Your task to perform on an android device: Check the news Image 0: 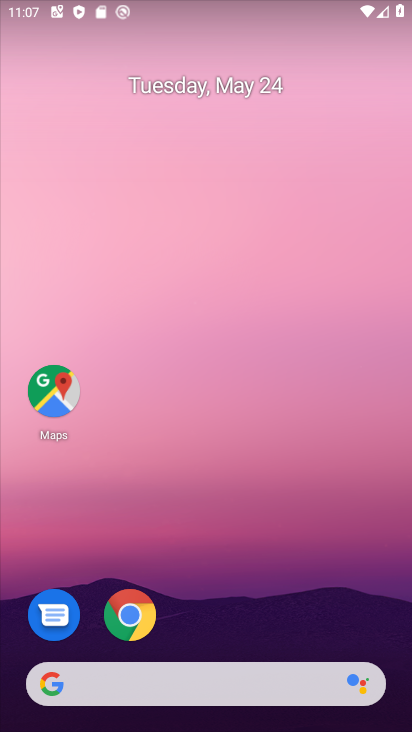
Step 0: drag from (205, 626) to (262, 100)
Your task to perform on an android device: Check the news Image 1: 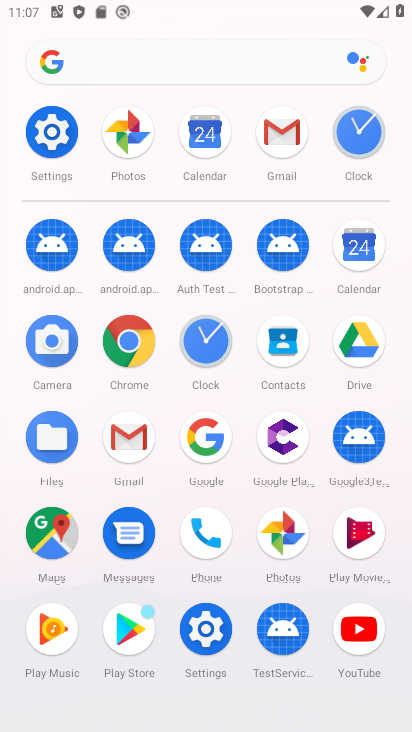
Step 1: click (317, 235)
Your task to perform on an android device: Check the news Image 2: 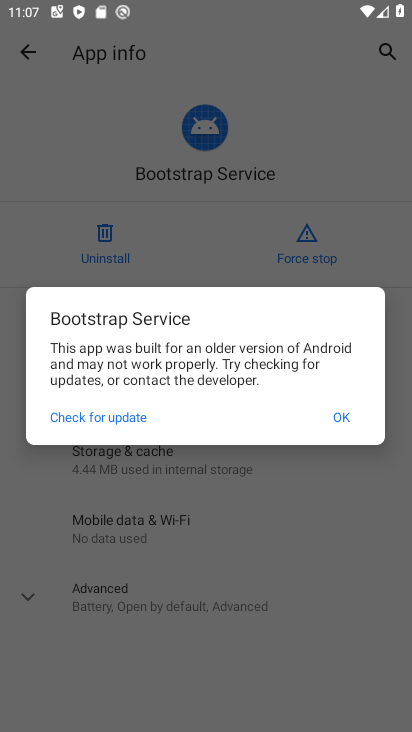
Step 2: press home button
Your task to perform on an android device: Check the news Image 3: 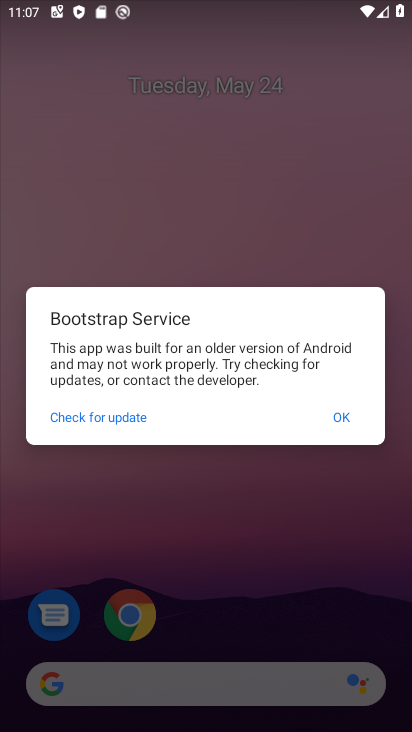
Step 3: press home button
Your task to perform on an android device: Check the news Image 4: 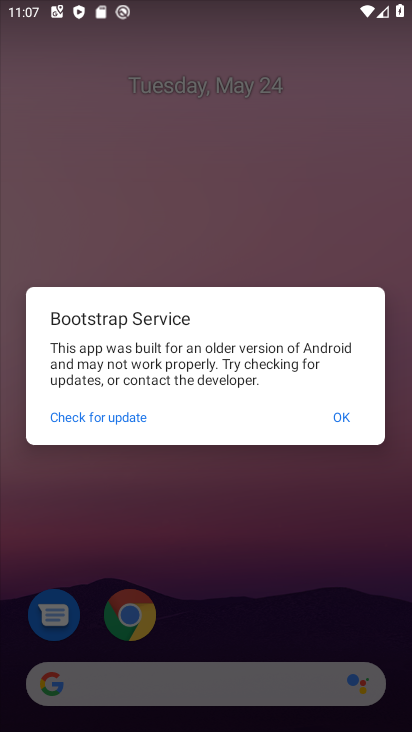
Step 4: press home button
Your task to perform on an android device: Check the news Image 5: 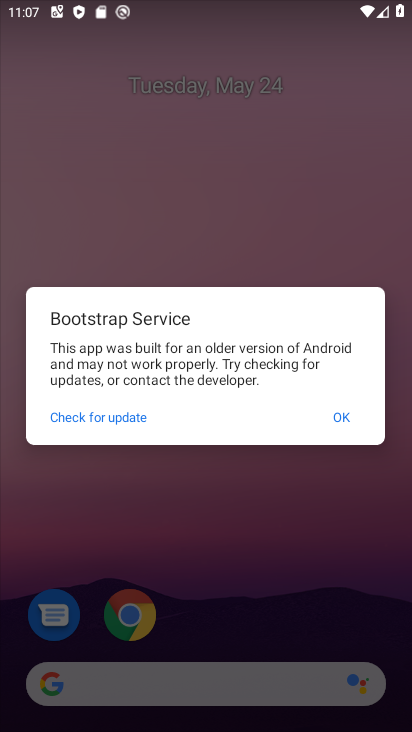
Step 5: press home button
Your task to perform on an android device: Check the news Image 6: 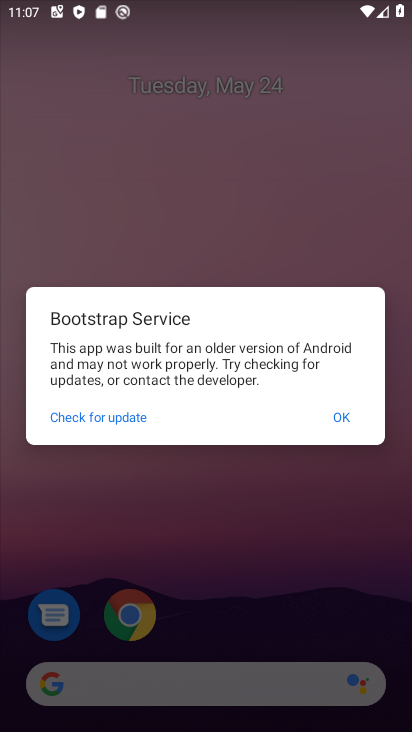
Step 6: press back button
Your task to perform on an android device: Check the news Image 7: 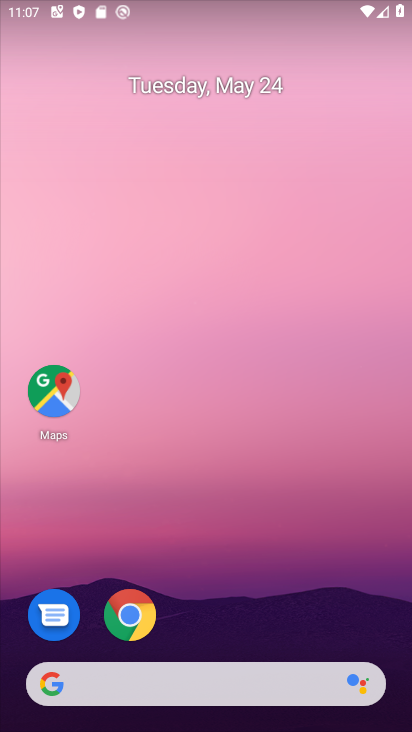
Step 7: drag from (180, 543) to (175, 103)
Your task to perform on an android device: Check the news Image 8: 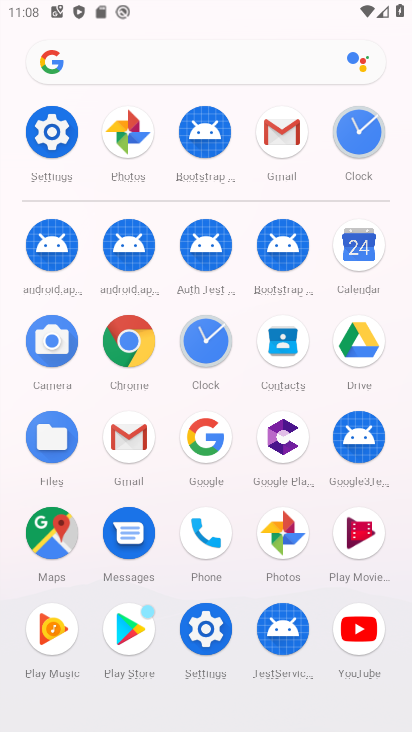
Step 8: click (200, 442)
Your task to perform on an android device: Check the news Image 9: 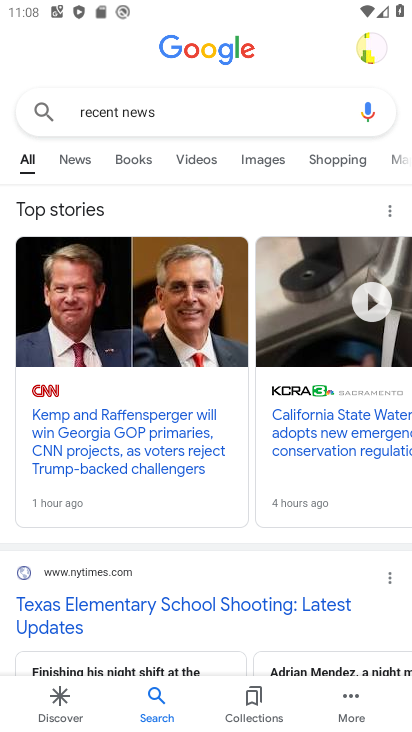
Step 9: click (112, 115)
Your task to perform on an android device: Check the news Image 10: 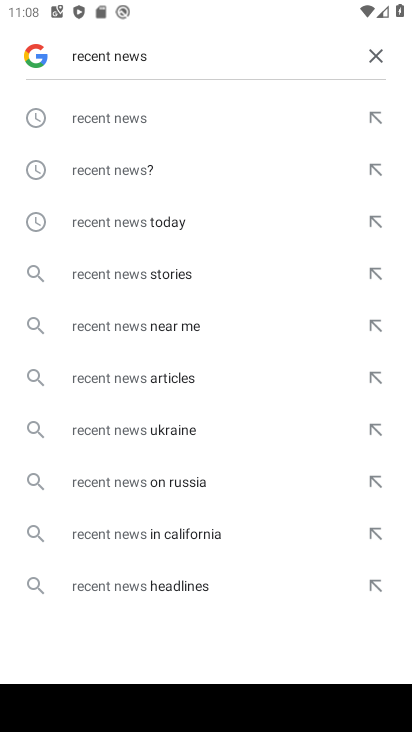
Step 10: click (111, 44)
Your task to perform on an android device: Check the news Image 11: 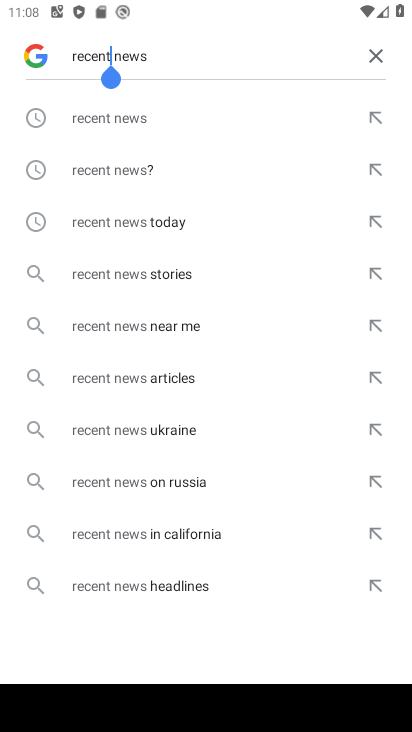
Step 11: click (112, 43)
Your task to perform on an android device: Check the news Image 12: 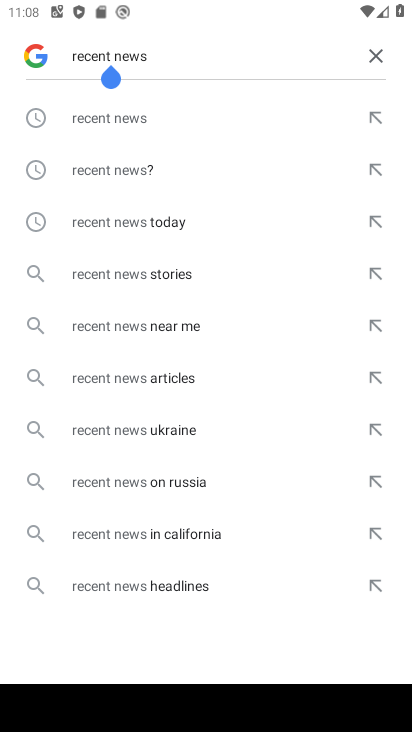
Step 12: click (104, 57)
Your task to perform on an android device: Check the news Image 13: 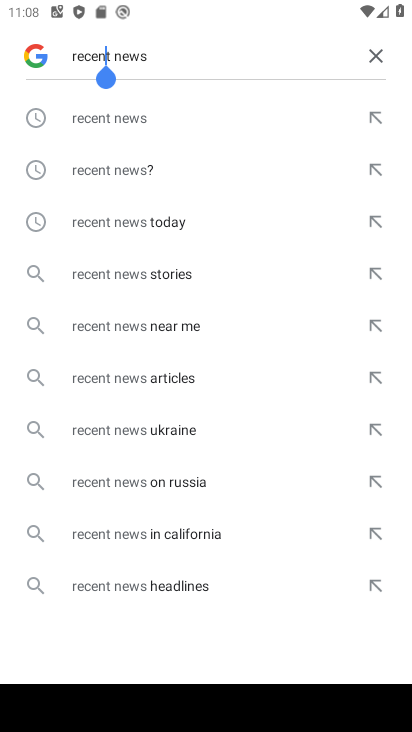
Step 13: click (378, 65)
Your task to perform on an android device: Check the news Image 14: 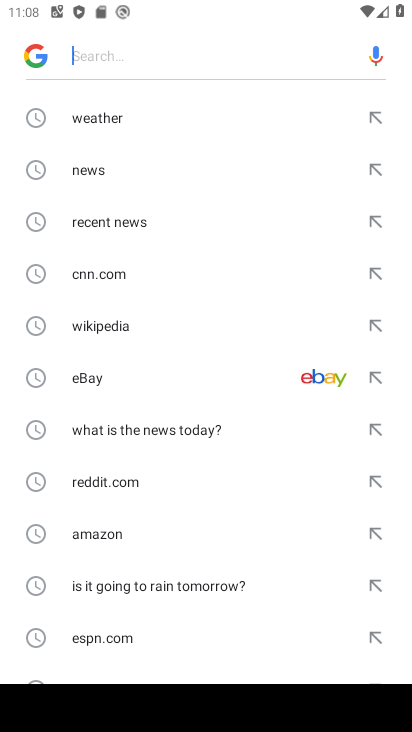
Step 14: click (102, 170)
Your task to perform on an android device: Check the news Image 15: 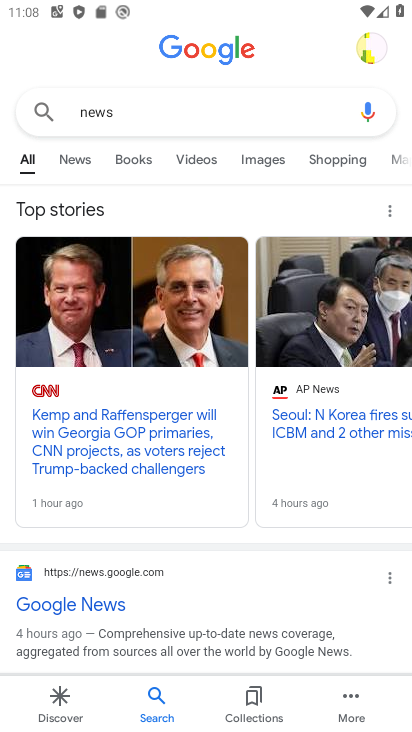
Step 15: task complete